Your task to perform on an android device: star an email in the gmail app Image 0: 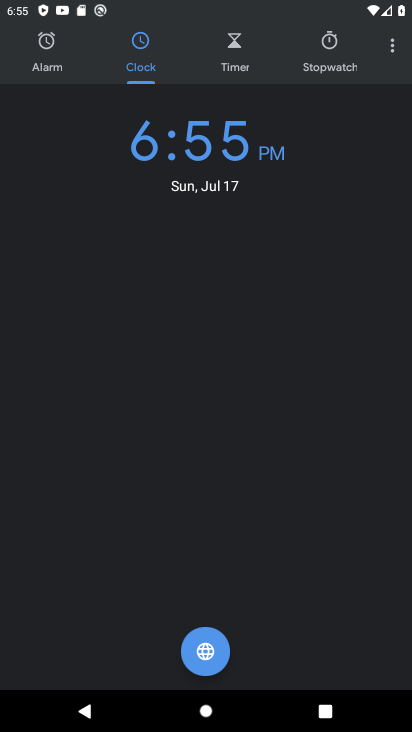
Step 0: press home button
Your task to perform on an android device: star an email in the gmail app Image 1: 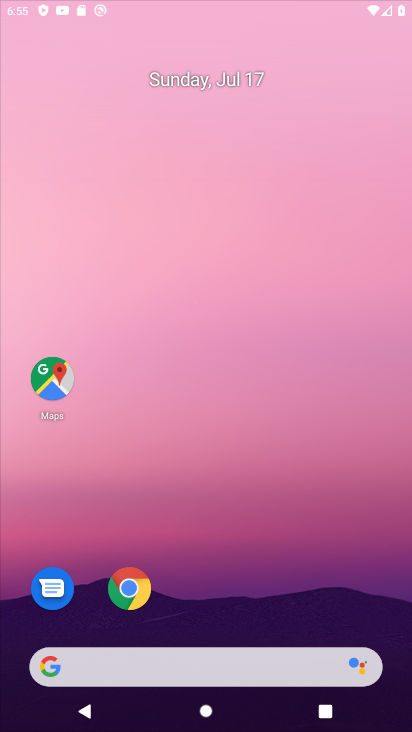
Step 1: drag from (370, 637) to (268, 0)
Your task to perform on an android device: star an email in the gmail app Image 2: 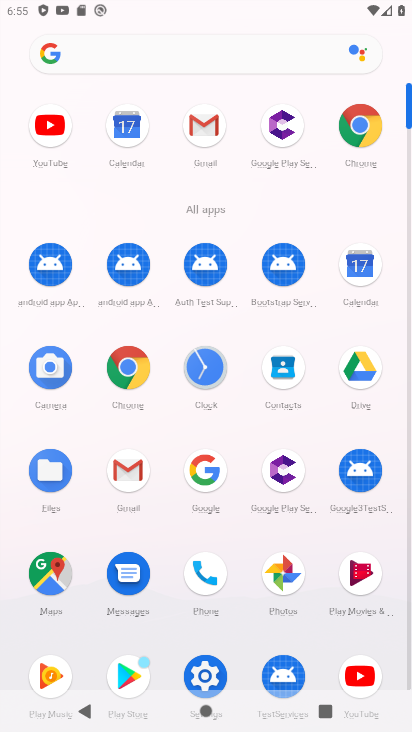
Step 2: click (129, 463)
Your task to perform on an android device: star an email in the gmail app Image 3: 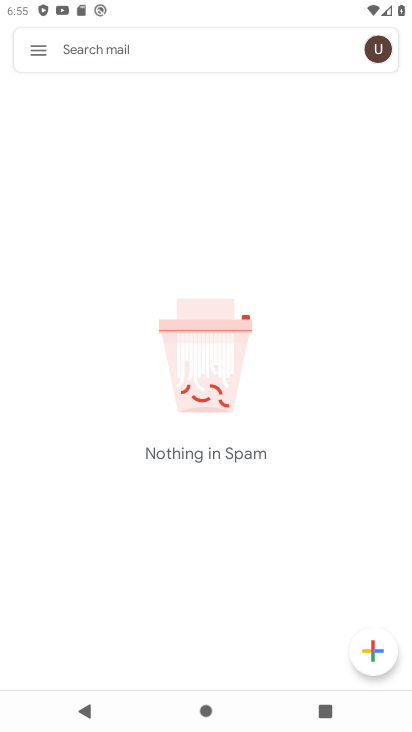
Step 3: click (31, 50)
Your task to perform on an android device: star an email in the gmail app Image 4: 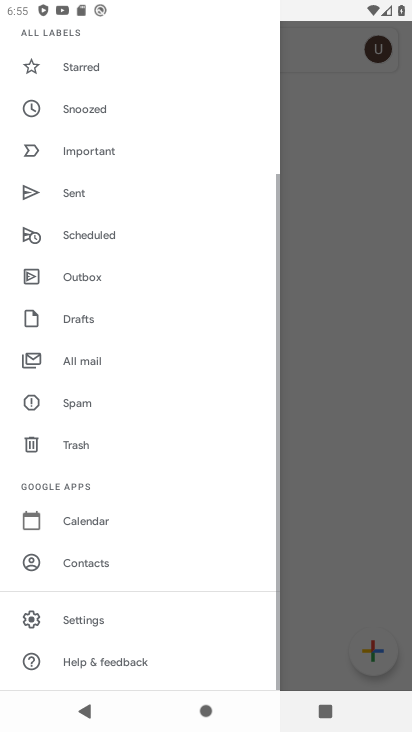
Step 4: drag from (74, 105) to (116, 606)
Your task to perform on an android device: star an email in the gmail app Image 5: 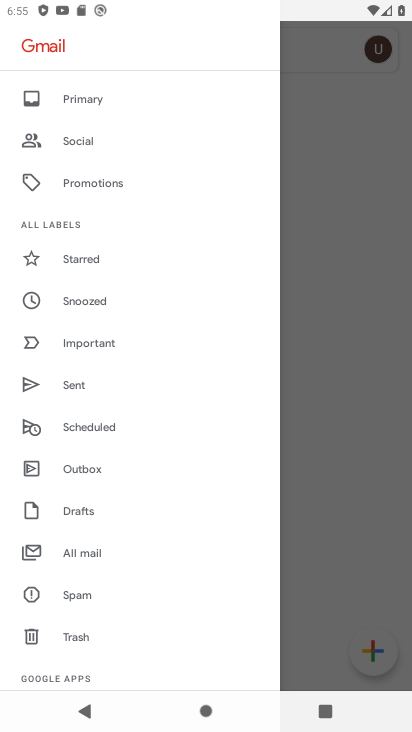
Step 5: click (96, 96)
Your task to perform on an android device: star an email in the gmail app Image 6: 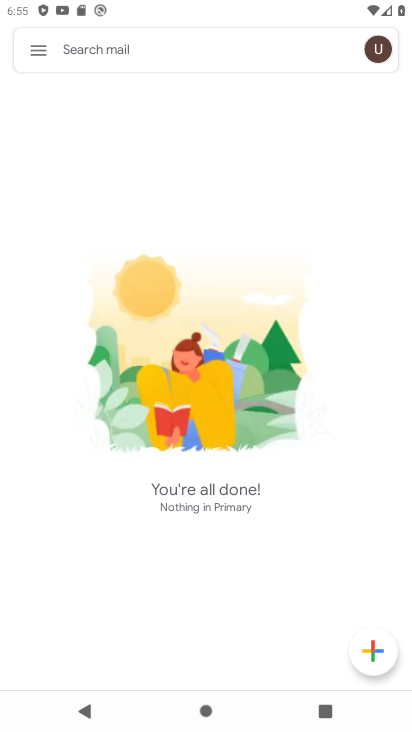
Step 6: task complete